Your task to perform on an android device: snooze an email in the gmail app Image 0: 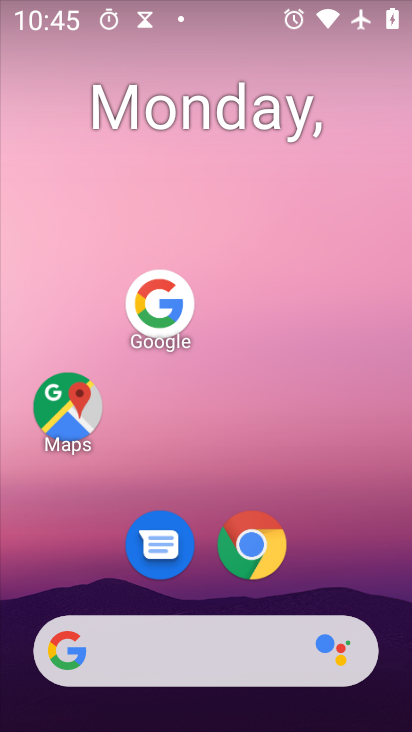
Step 0: press home button
Your task to perform on an android device: snooze an email in the gmail app Image 1: 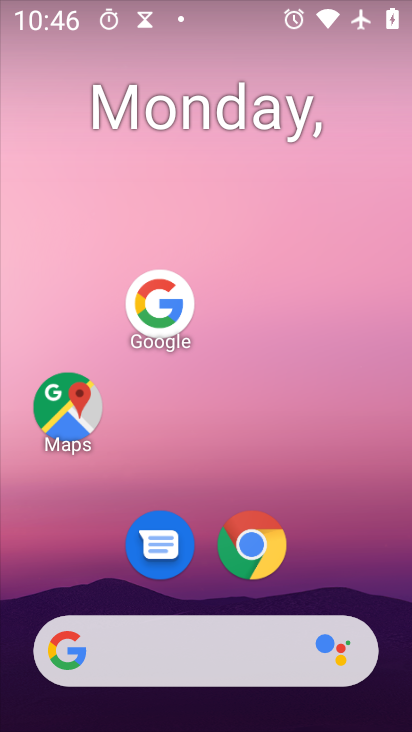
Step 1: drag from (180, 652) to (311, 120)
Your task to perform on an android device: snooze an email in the gmail app Image 2: 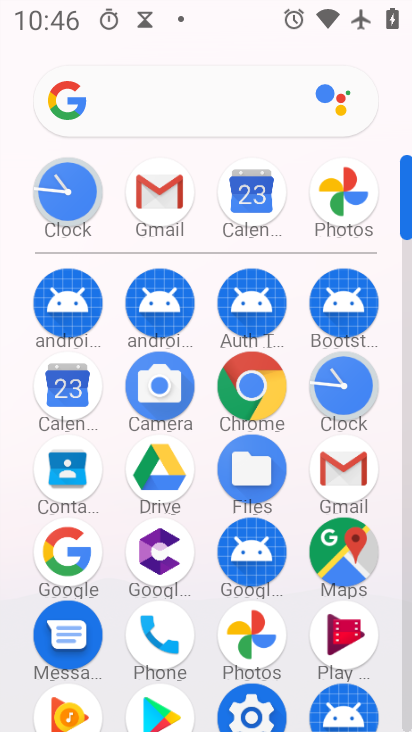
Step 2: click (148, 203)
Your task to perform on an android device: snooze an email in the gmail app Image 3: 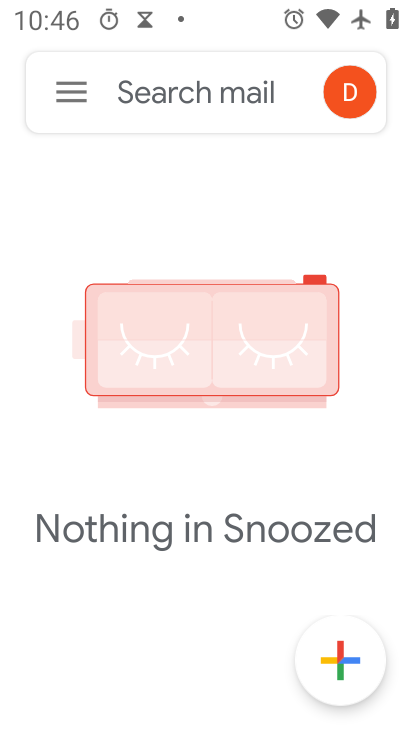
Step 3: click (71, 84)
Your task to perform on an android device: snooze an email in the gmail app Image 4: 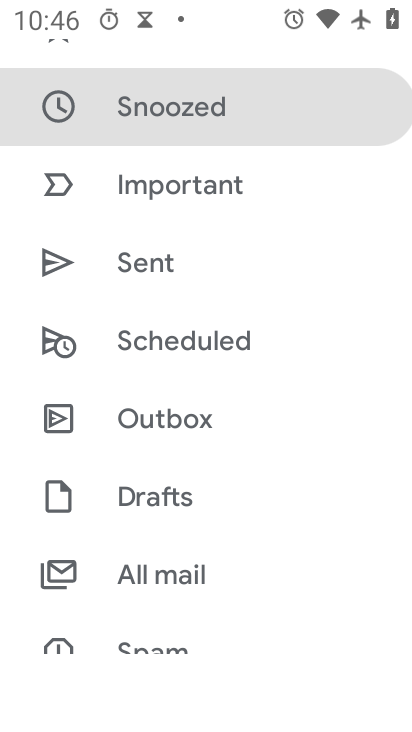
Step 4: click (163, 582)
Your task to perform on an android device: snooze an email in the gmail app Image 5: 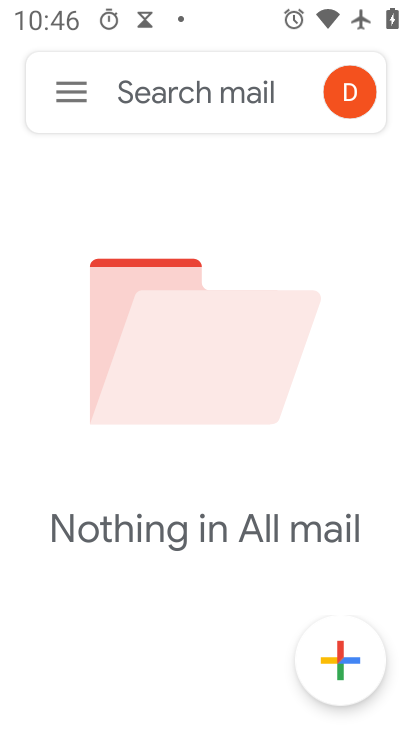
Step 5: task complete